Your task to perform on an android device: Open Youtube and go to the subscriptions tab Image 0: 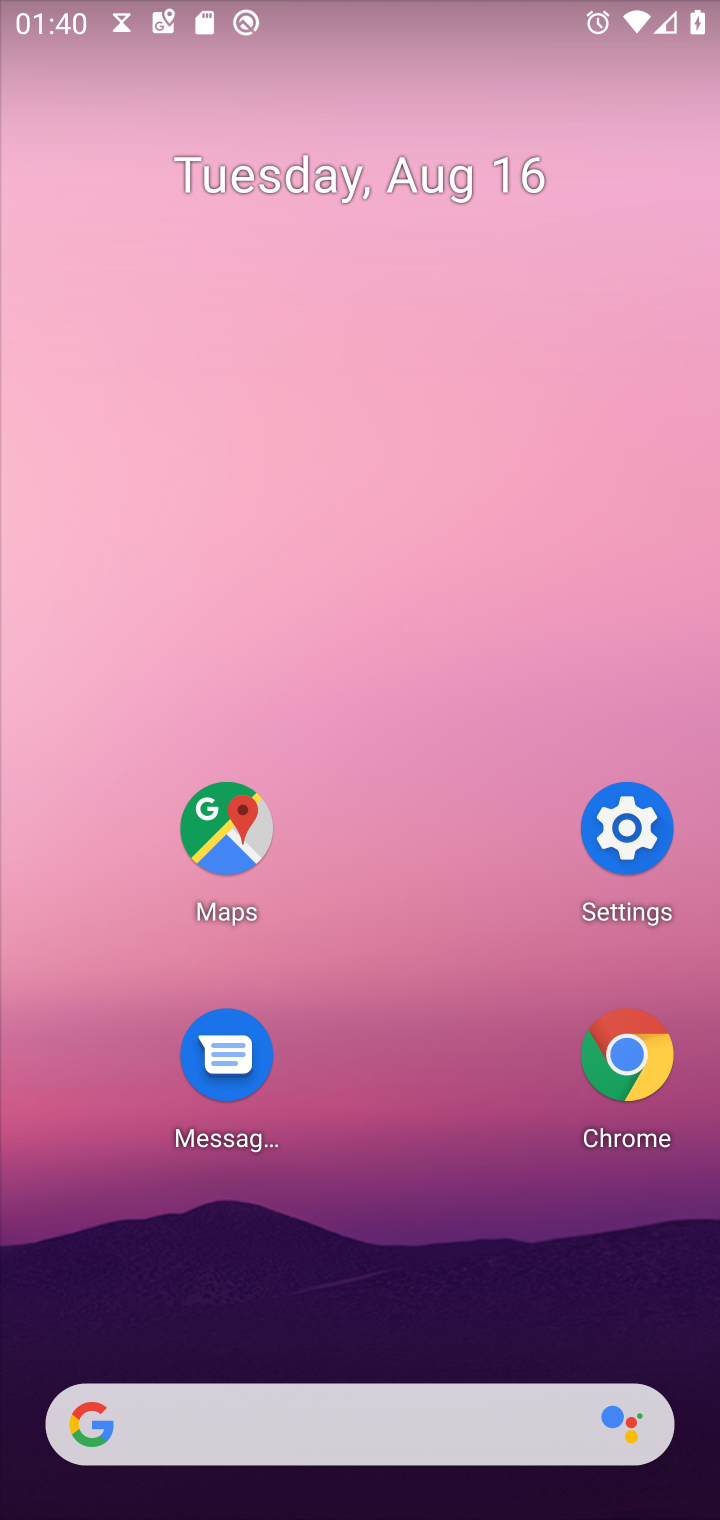
Step 0: drag from (380, 1354) to (540, 231)
Your task to perform on an android device: Open Youtube and go to the subscriptions tab Image 1: 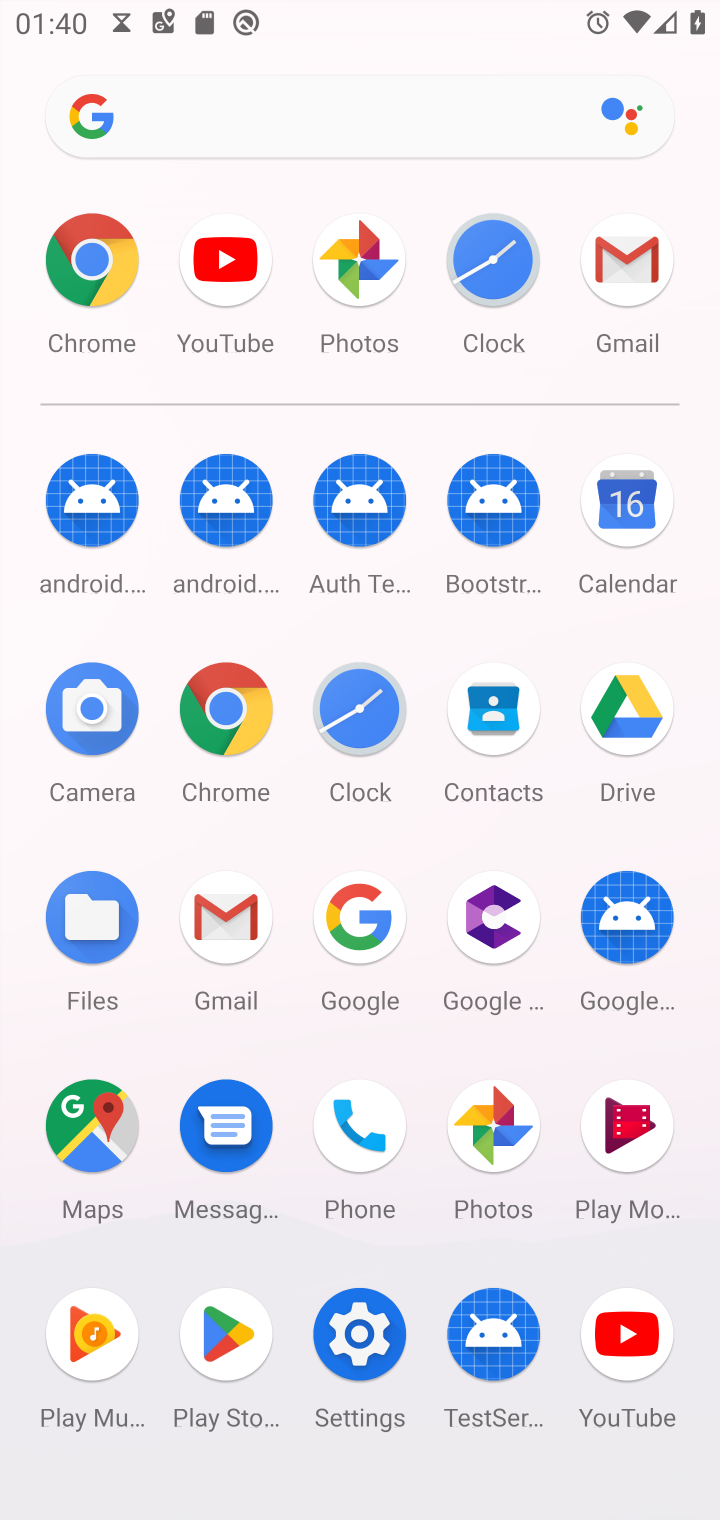
Step 1: click (633, 1322)
Your task to perform on an android device: Open Youtube and go to the subscriptions tab Image 2: 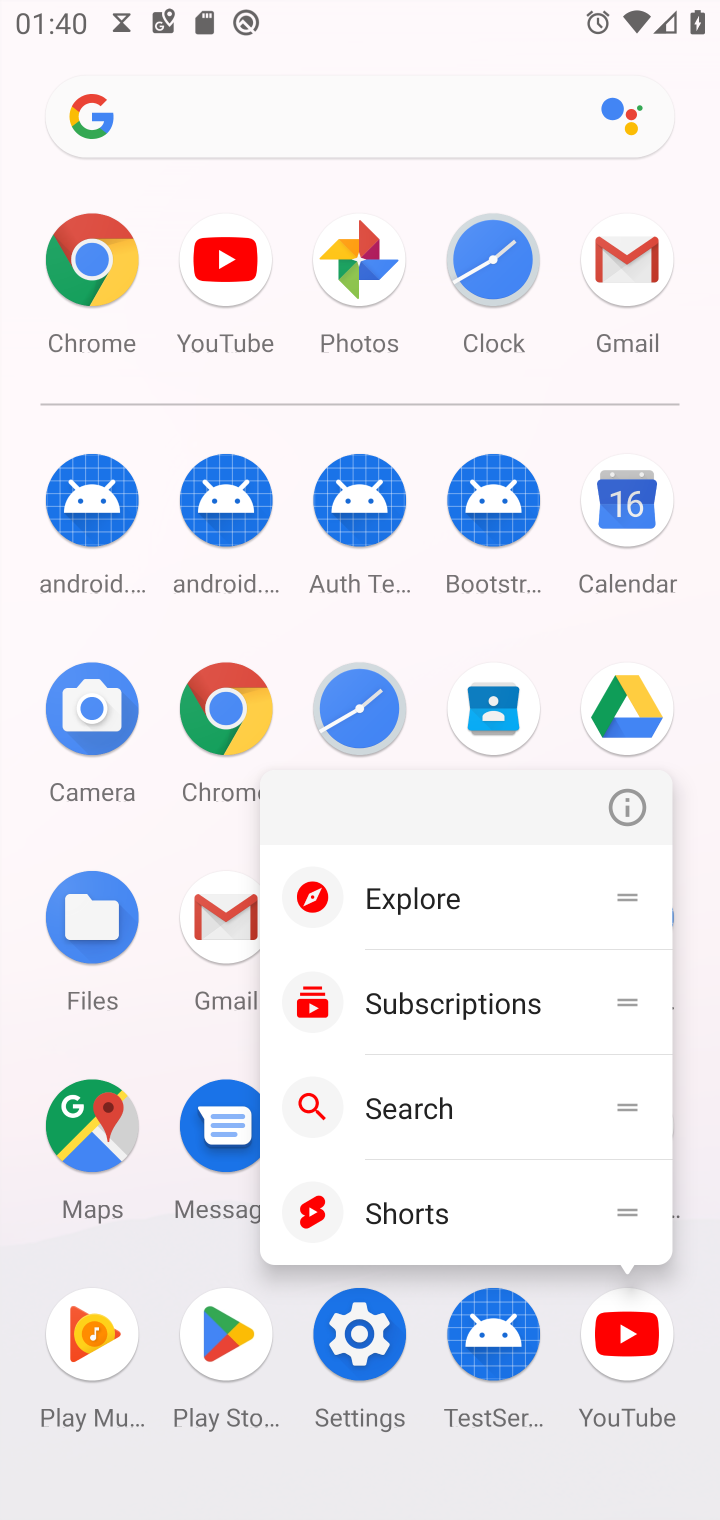
Step 2: click (635, 1330)
Your task to perform on an android device: Open Youtube and go to the subscriptions tab Image 3: 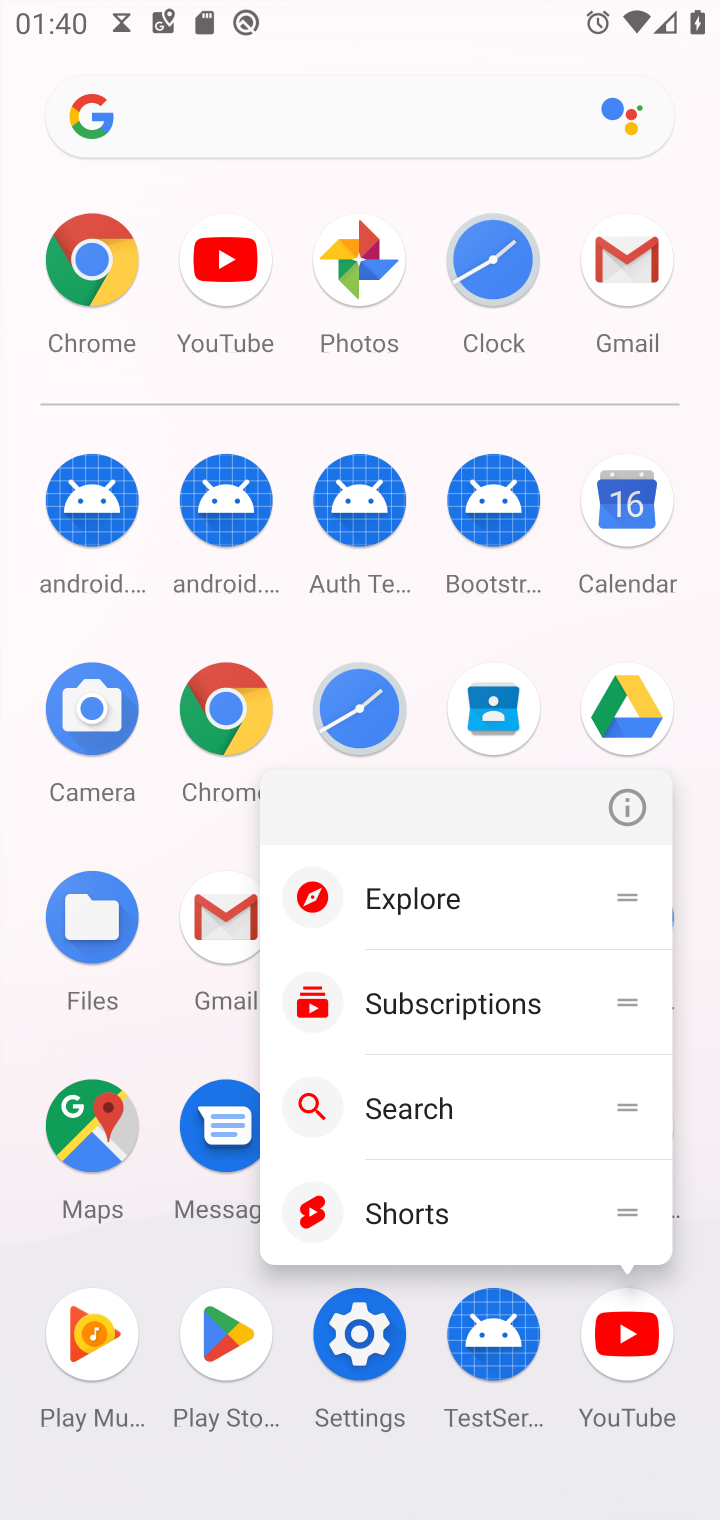
Step 3: click (635, 1323)
Your task to perform on an android device: Open Youtube and go to the subscriptions tab Image 4: 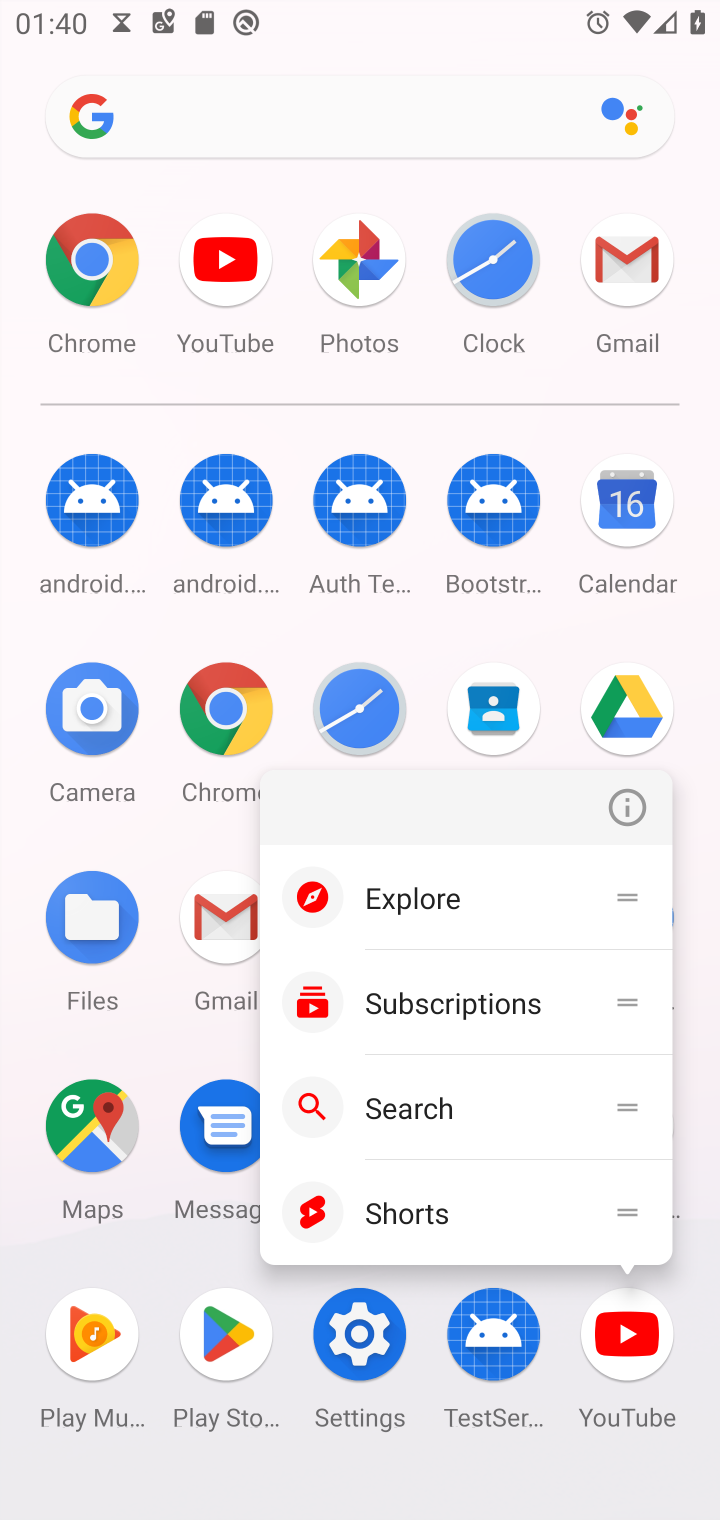
Step 4: click (635, 1339)
Your task to perform on an android device: Open Youtube and go to the subscriptions tab Image 5: 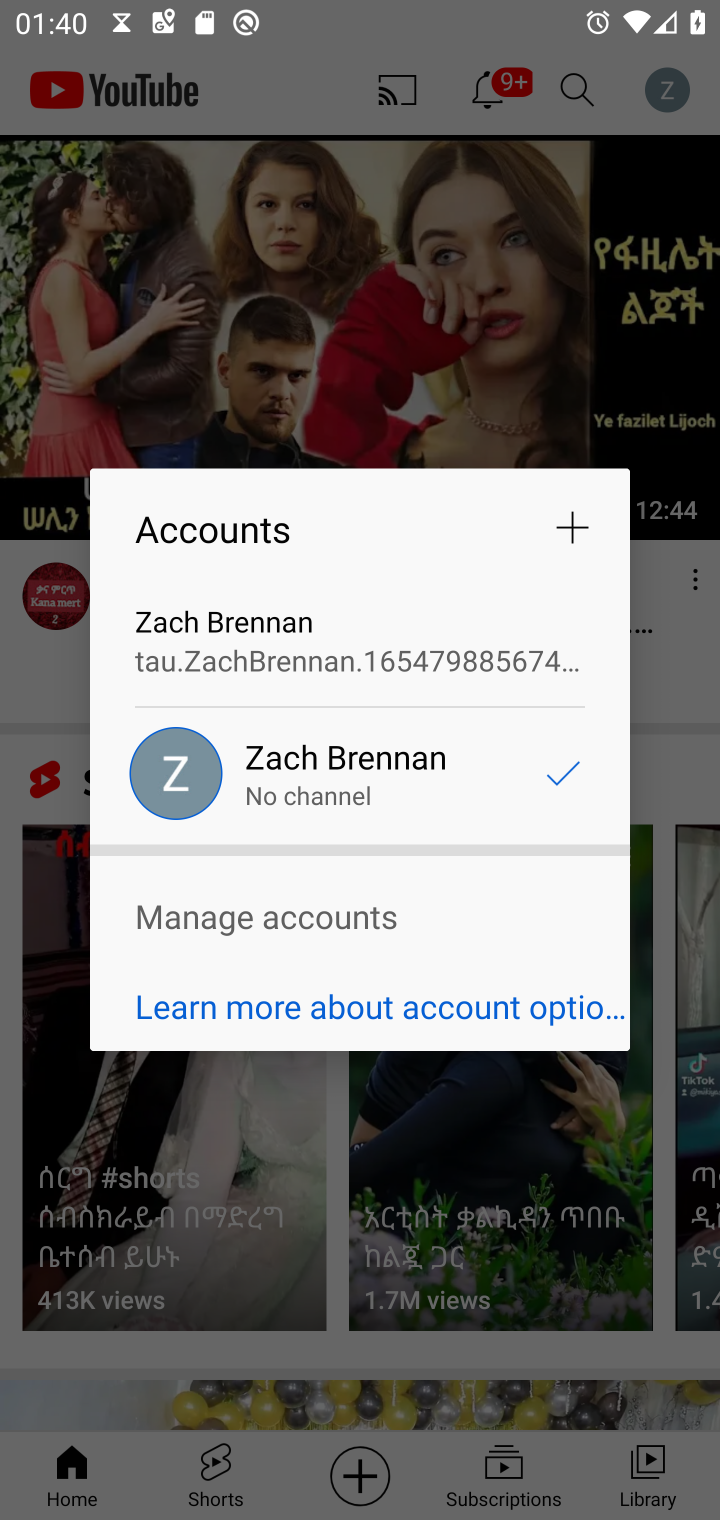
Step 5: click (491, 1475)
Your task to perform on an android device: Open Youtube and go to the subscriptions tab Image 6: 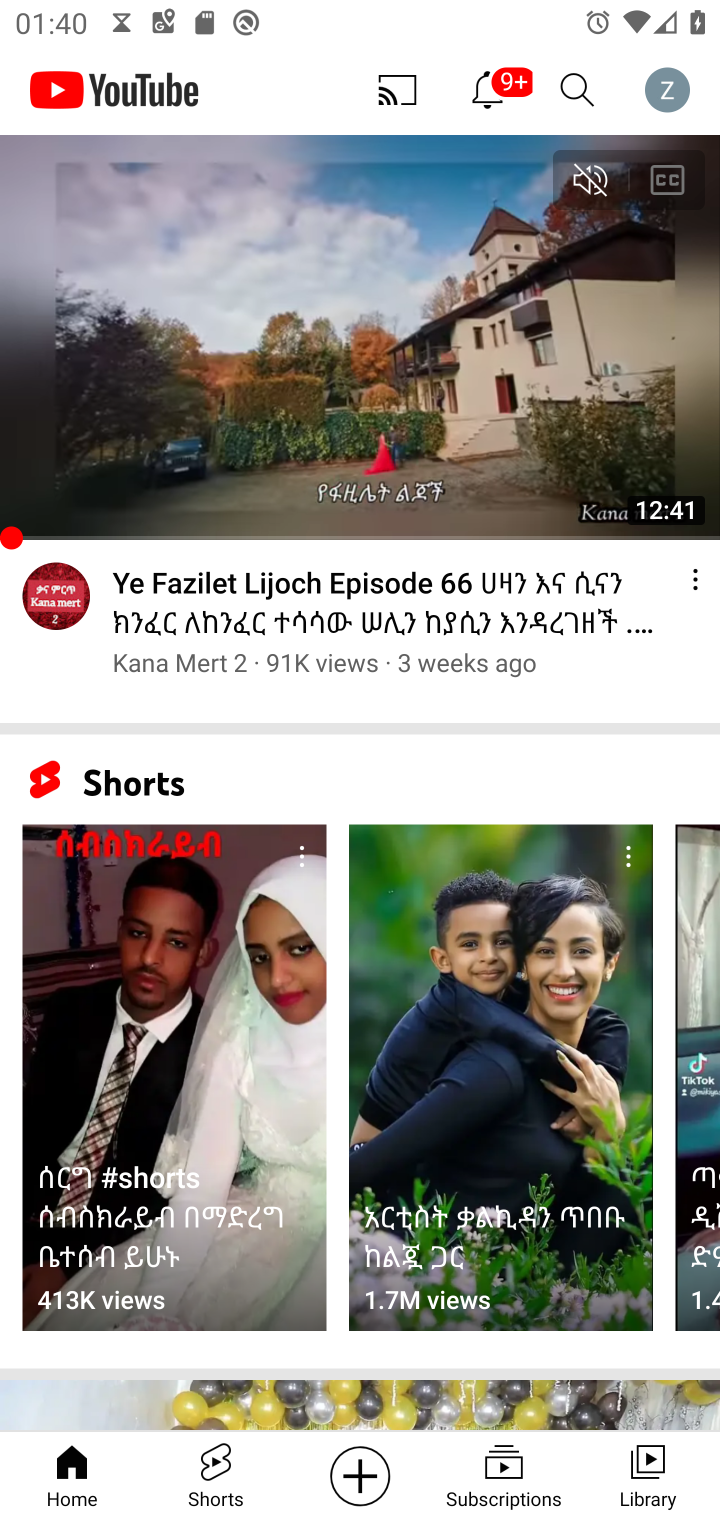
Step 6: click (515, 1477)
Your task to perform on an android device: Open Youtube and go to the subscriptions tab Image 7: 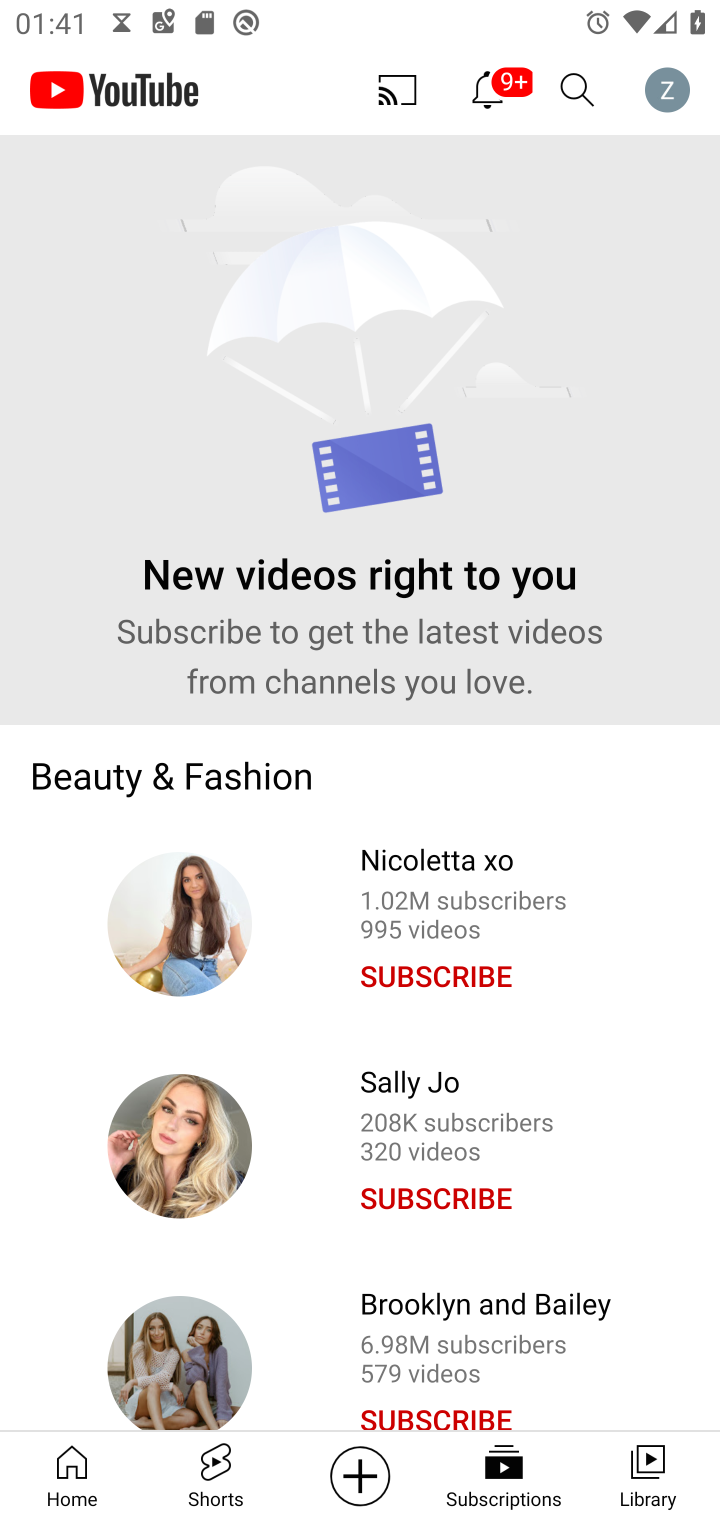
Step 7: task complete